Your task to perform on an android device: Open Google Maps and go to "Timeline" Image 0: 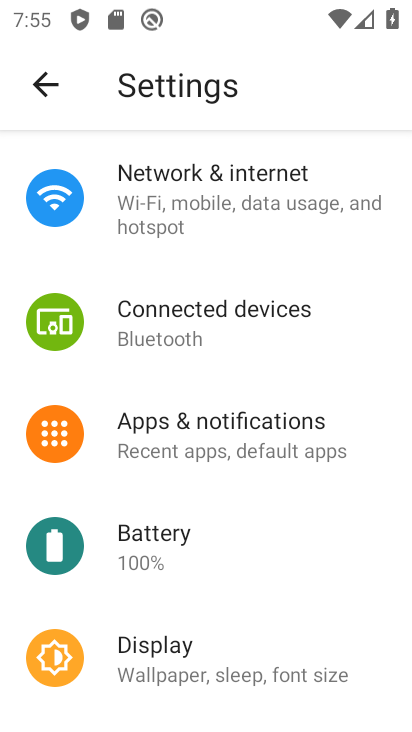
Step 0: press home button
Your task to perform on an android device: Open Google Maps and go to "Timeline" Image 1: 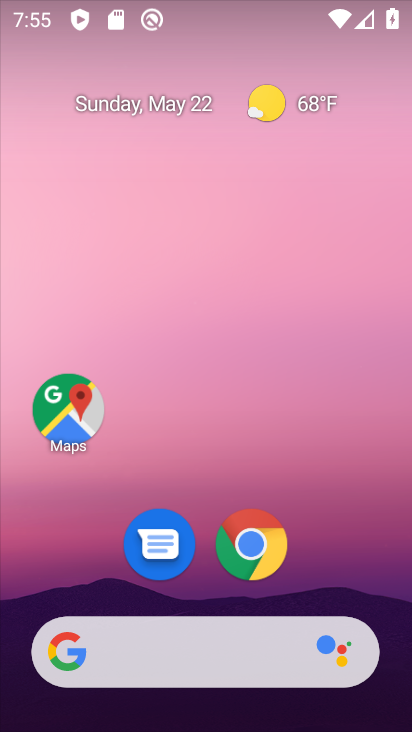
Step 1: click (59, 397)
Your task to perform on an android device: Open Google Maps and go to "Timeline" Image 2: 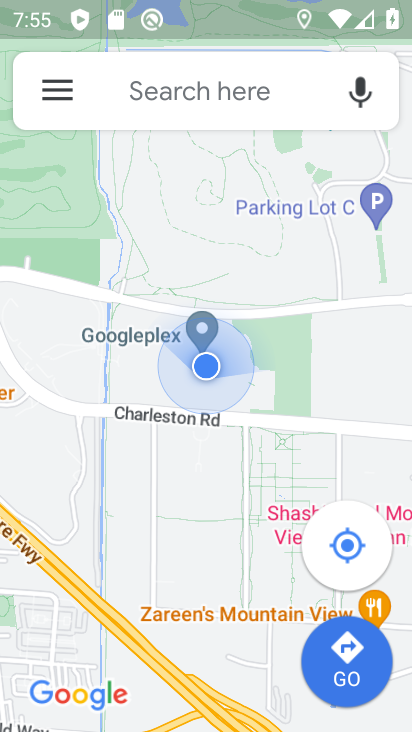
Step 2: click (37, 99)
Your task to perform on an android device: Open Google Maps and go to "Timeline" Image 3: 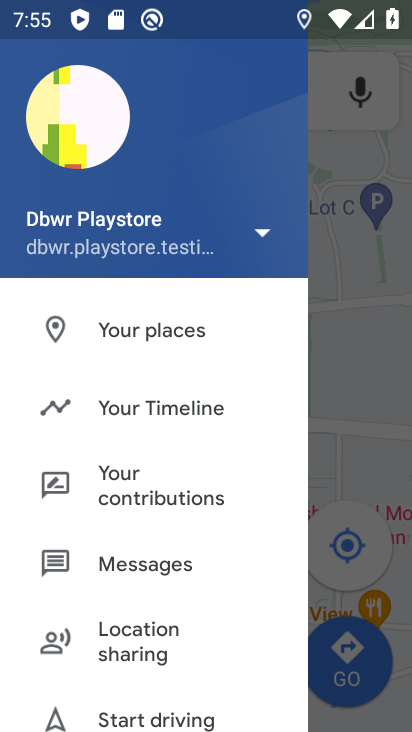
Step 3: click (151, 420)
Your task to perform on an android device: Open Google Maps and go to "Timeline" Image 4: 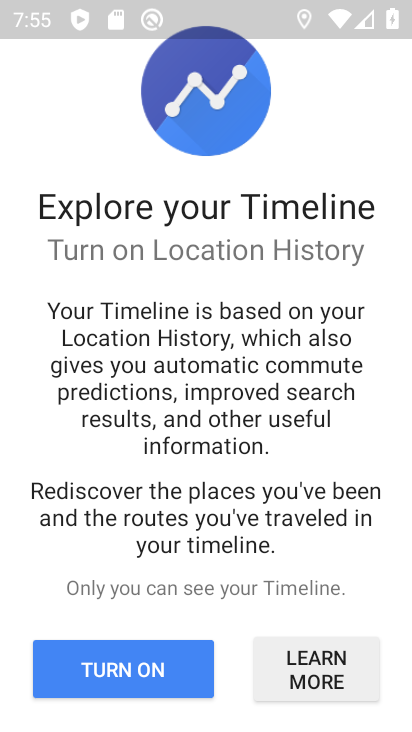
Step 4: click (135, 658)
Your task to perform on an android device: Open Google Maps and go to "Timeline" Image 5: 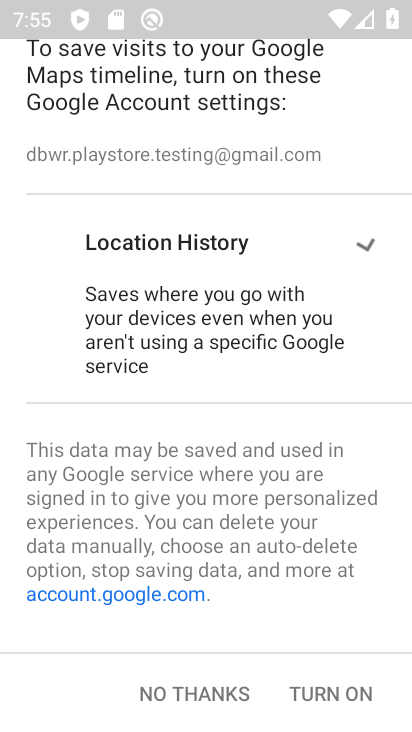
Step 5: task complete